Your task to perform on an android device: empty trash in google photos Image 0: 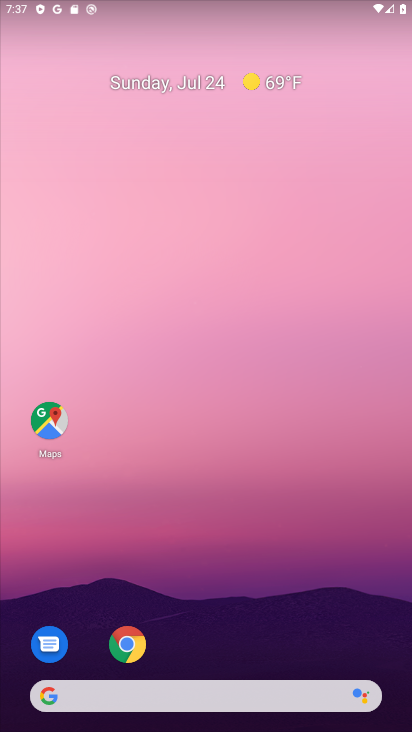
Step 0: drag from (194, 670) to (155, 272)
Your task to perform on an android device: empty trash in google photos Image 1: 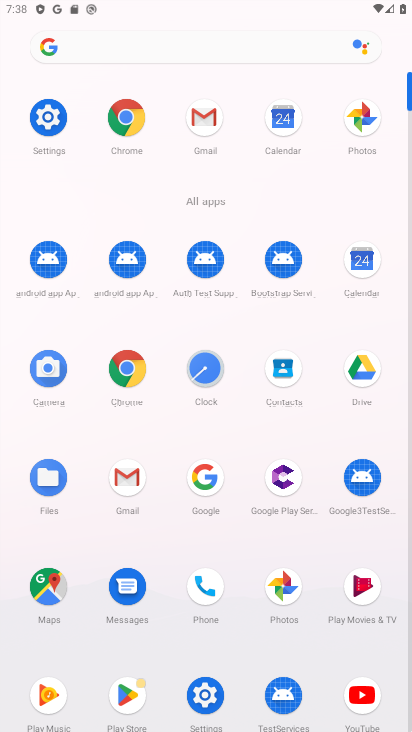
Step 1: click (277, 593)
Your task to perform on an android device: empty trash in google photos Image 2: 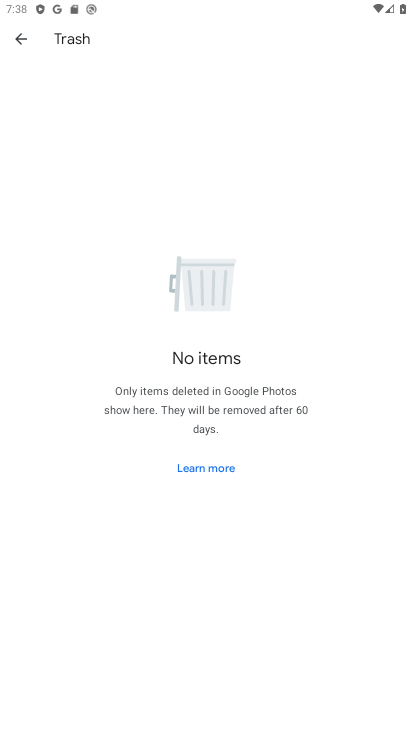
Step 2: task complete